Your task to perform on an android device: turn on showing notifications on the lock screen Image 0: 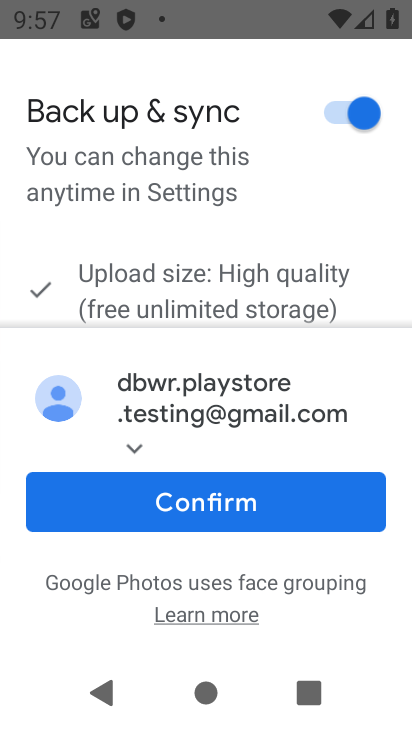
Step 0: click (231, 513)
Your task to perform on an android device: turn on showing notifications on the lock screen Image 1: 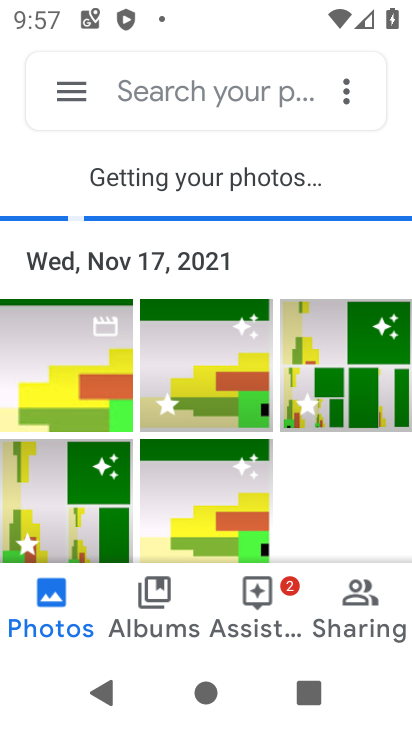
Step 1: press home button
Your task to perform on an android device: turn on showing notifications on the lock screen Image 2: 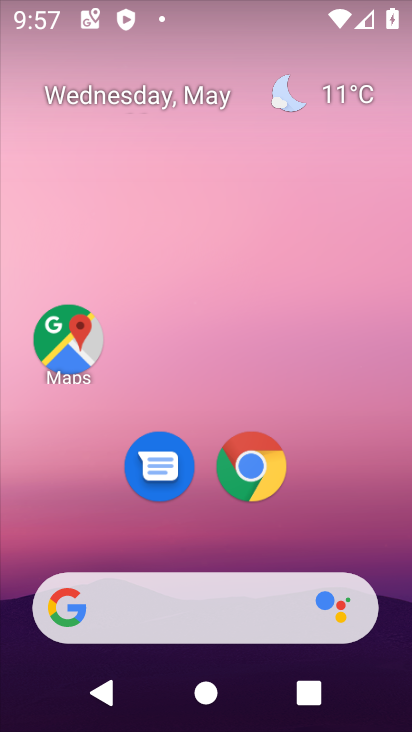
Step 2: drag from (319, 50) to (43, 616)
Your task to perform on an android device: turn on showing notifications on the lock screen Image 3: 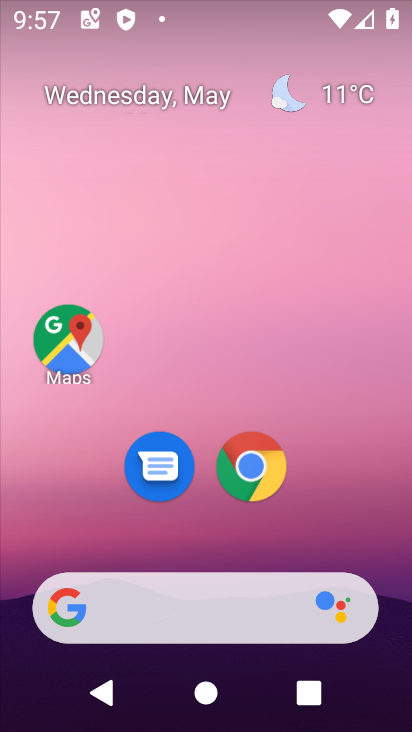
Step 3: drag from (268, 535) to (276, 68)
Your task to perform on an android device: turn on showing notifications on the lock screen Image 4: 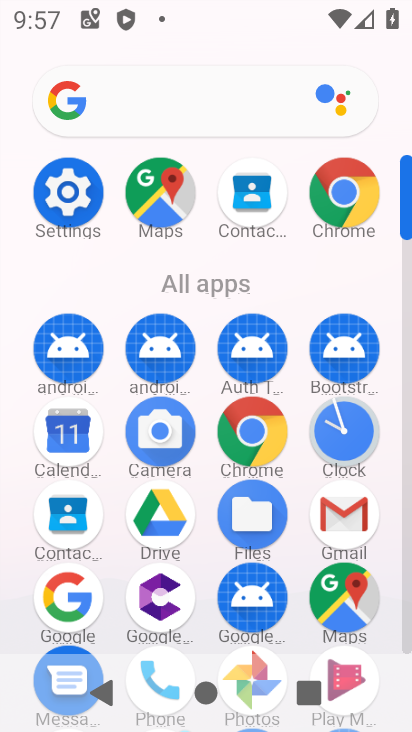
Step 4: click (77, 228)
Your task to perform on an android device: turn on showing notifications on the lock screen Image 5: 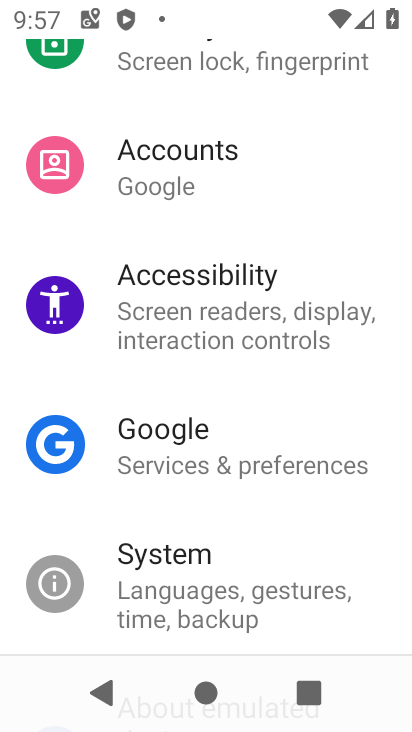
Step 5: drag from (305, 158) to (292, 521)
Your task to perform on an android device: turn on showing notifications on the lock screen Image 6: 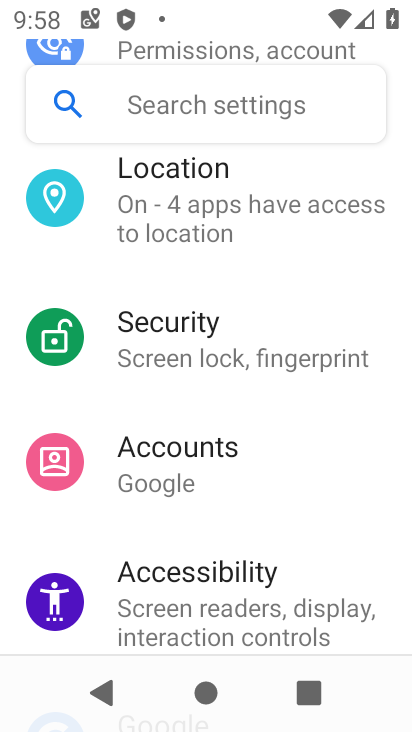
Step 6: drag from (248, 187) to (214, 498)
Your task to perform on an android device: turn on showing notifications on the lock screen Image 7: 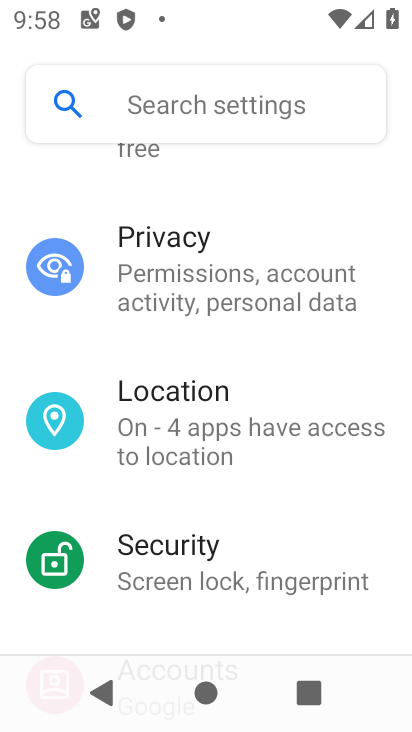
Step 7: drag from (276, 260) to (245, 695)
Your task to perform on an android device: turn on showing notifications on the lock screen Image 8: 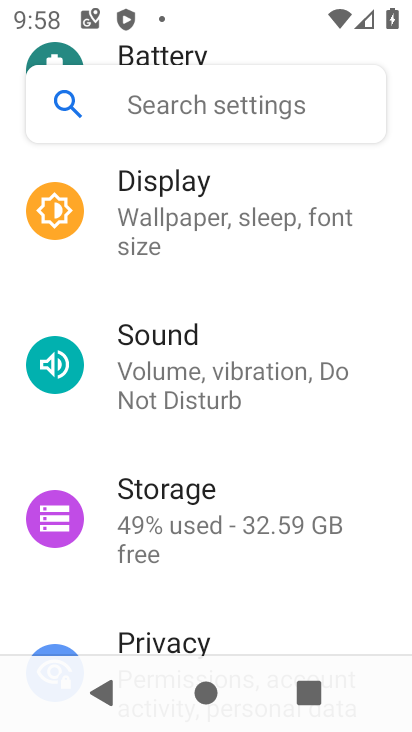
Step 8: drag from (226, 248) to (226, 623)
Your task to perform on an android device: turn on showing notifications on the lock screen Image 9: 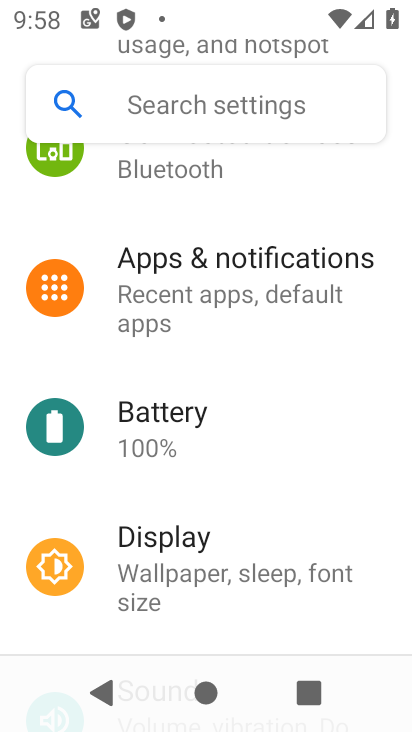
Step 9: drag from (261, 174) to (249, 611)
Your task to perform on an android device: turn on showing notifications on the lock screen Image 10: 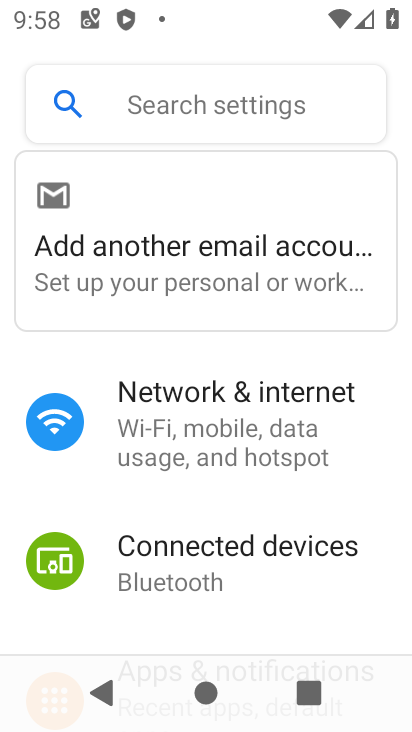
Step 10: drag from (241, 615) to (334, 211)
Your task to perform on an android device: turn on showing notifications on the lock screen Image 11: 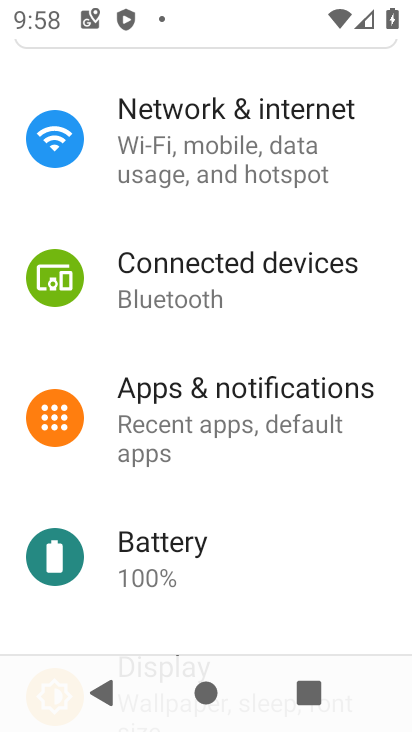
Step 11: click (268, 435)
Your task to perform on an android device: turn on showing notifications on the lock screen Image 12: 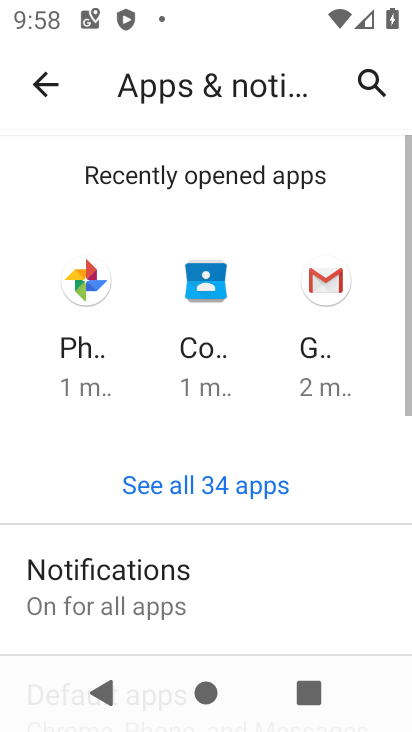
Step 12: drag from (236, 592) to (253, 209)
Your task to perform on an android device: turn on showing notifications on the lock screen Image 13: 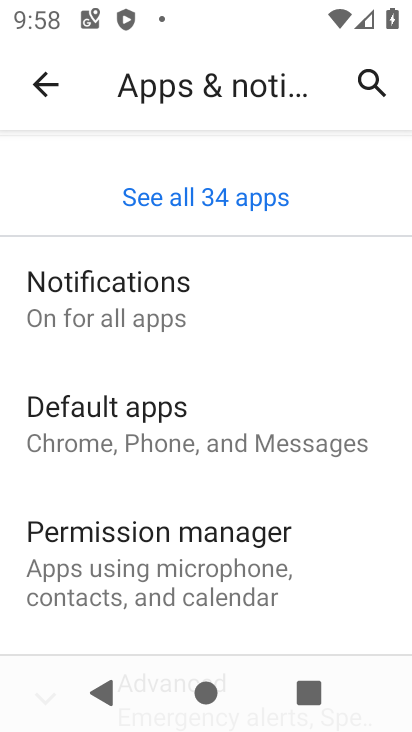
Step 13: click (109, 303)
Your task to perform on an android device: turn on showing notifications on the lock screen Image 14: 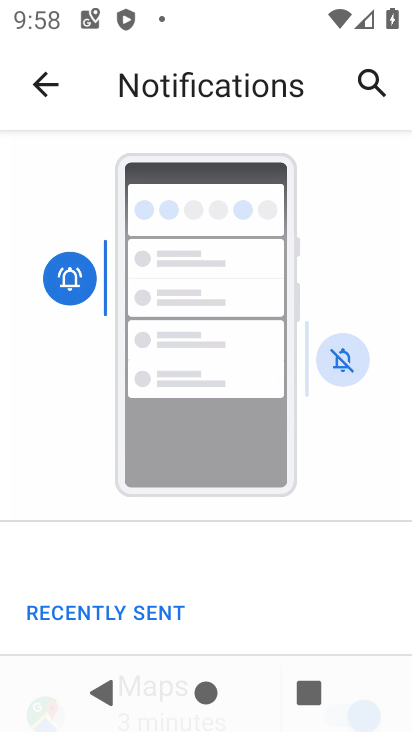
Step 14: drag from (271, 622) to (291, 236)
Your task to perform on an android device: turn on showing notifications on the lock screen Image 15: 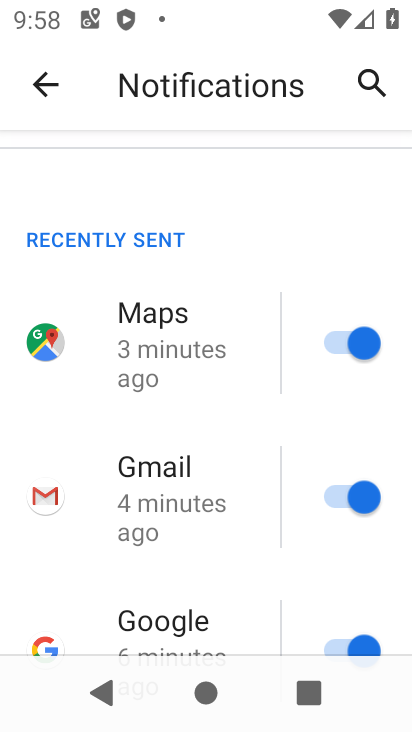
Step 15: drag from (199, 564) to (208, 158)
Your task to perform on an android device: turn on showing notifications on the lock screen Image 16: 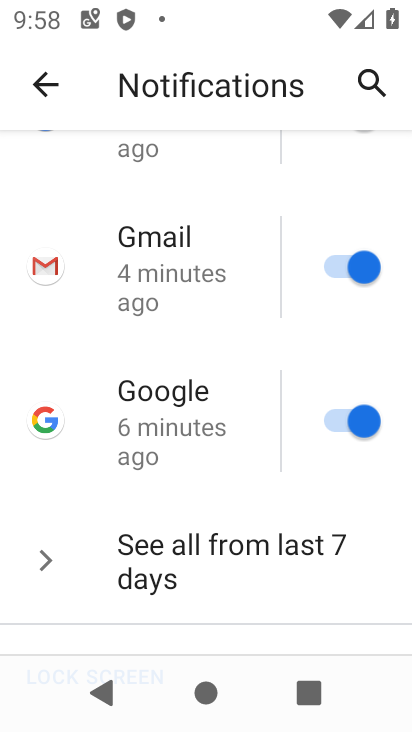
Step 16: drag from (232, 596) to (271, 205)
Your task to perform on an android device: turn on showing notifications on the lock screen Image 17: 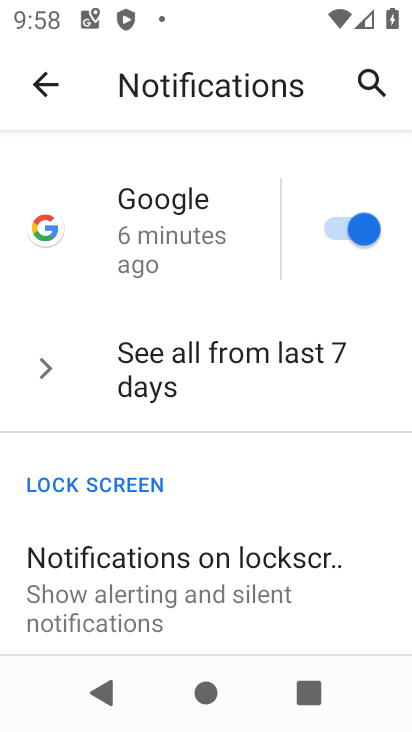
Step 17: click (195, 597)
Your task to perform on an android device: turn on showing notifications on the lock screen Image 18: 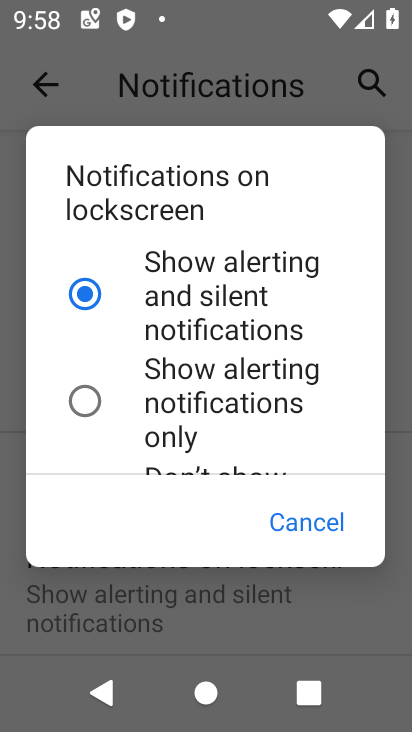
Step 18: task complete